Your task to perform on an android device: move an email to a new category in the gmail app Image 0: 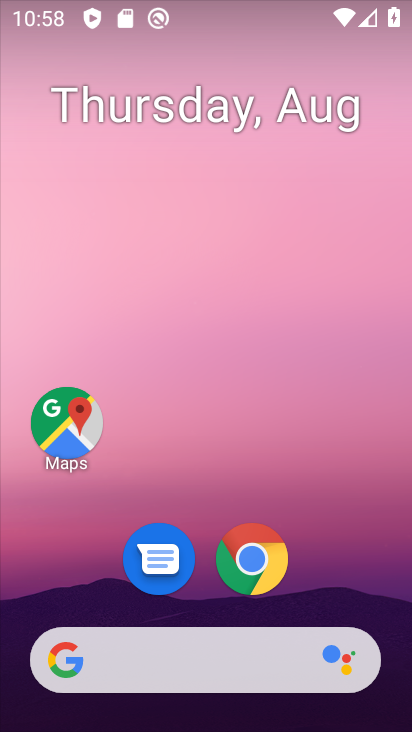
Step 0: drag from (297, 456) to (266, 141)
Your task to perform on an android device: move an email to a new category in the gmail app Image 1: 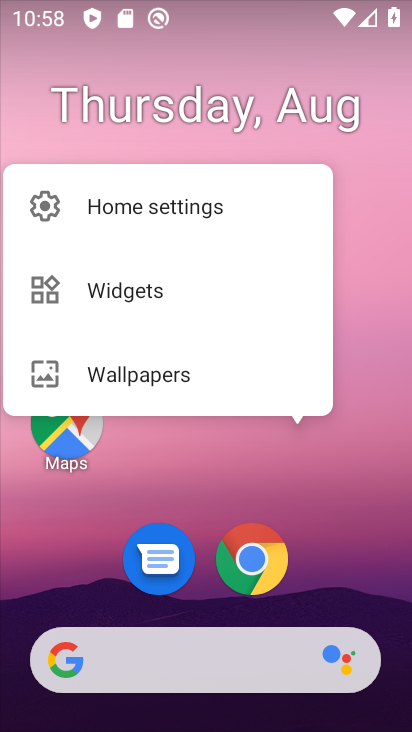
Step 1: click (387, 527)
Your task to perform on an android device: move an email to a new category in the gmail app Image 2: 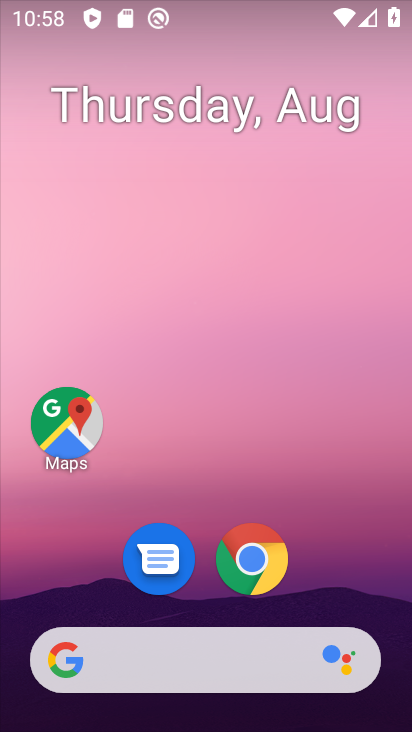
Step 2: drag from (404, 601) to (374, 239)
Your task to perform on an android device: move an email to a new category in the gmail app Image 3: 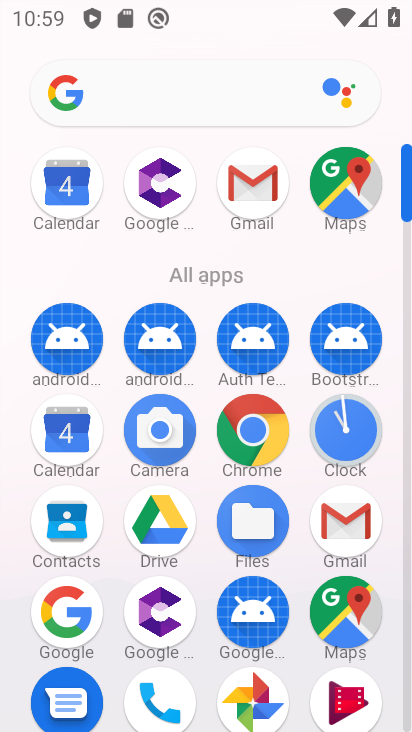
Step 3: click (254, 208)
Your task to perform on an android device: move an email to a new category in the gmail app Image 4: 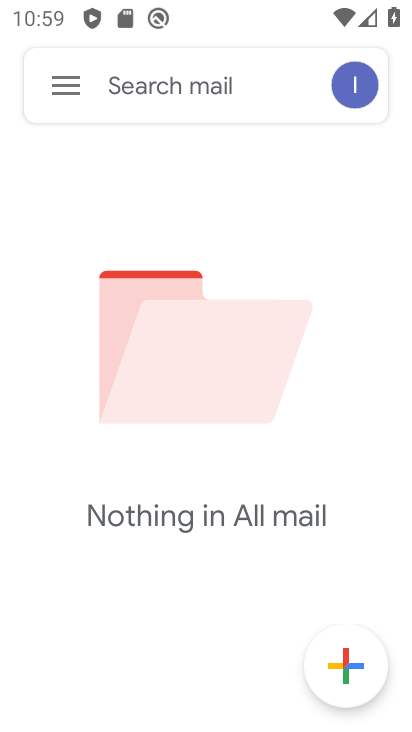
Step 4: task complete